Your task to perform on an android device: Go to Yahoo.com Image 0: 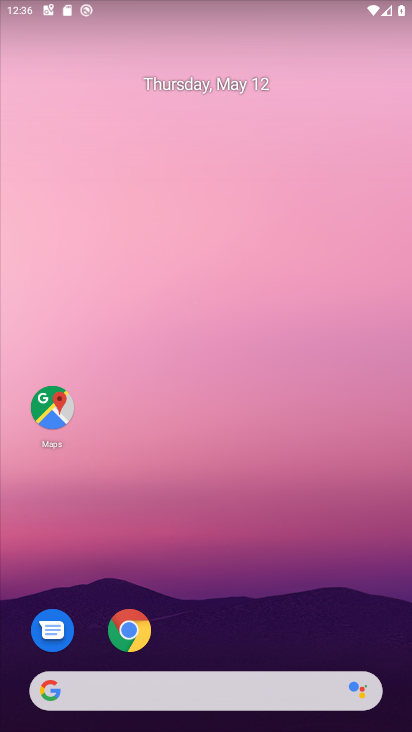
Step 0: click (130, 620)
Your task to perform on an android device: Go to Yahoo.com Image 1: 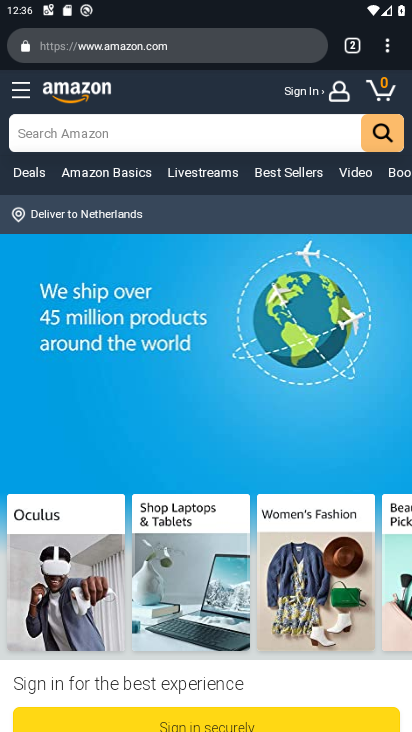
Step 1: drag from (388, 53) to (215, 94)
Your task to perform on an android device: Go to Yahoo.com Image 2: 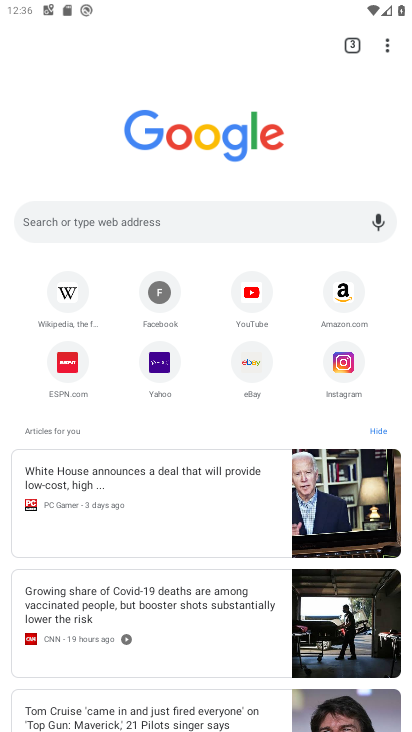
Step 2: click (166, 210)
Your task to perform on an android device: Go to Yahoo.com Image 3: 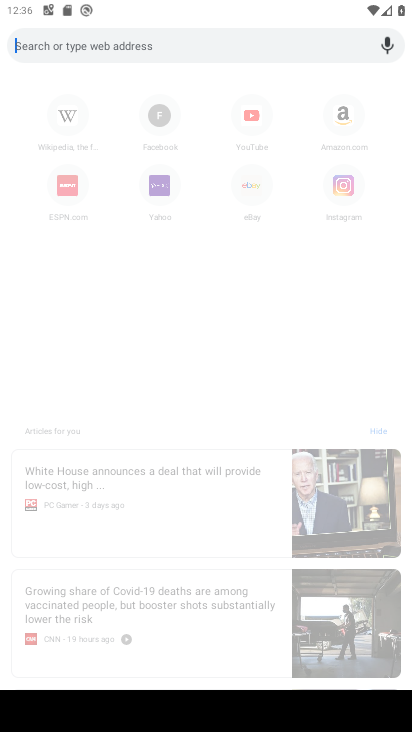
Step 3: type " Yahoo.com"
Your task to perform on an android device: Go to Yahoo.com Image 4: 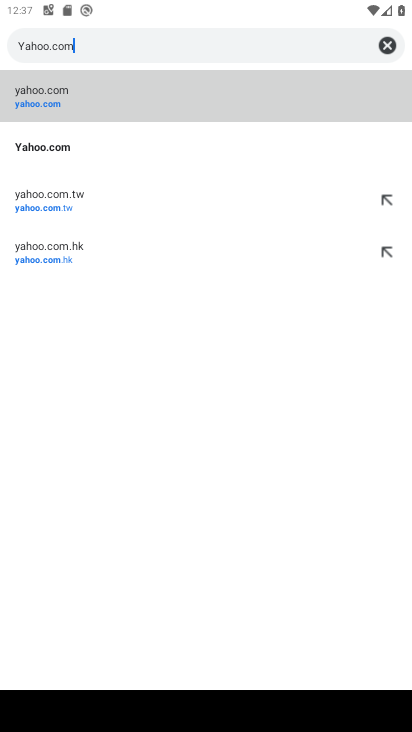
Step 4: click (41, 100)
Your task to perform on an android device: Go to Yahoo.com Image 5: 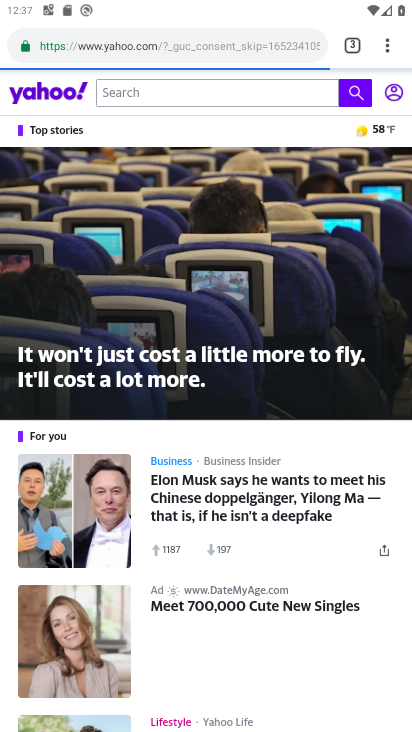
Step 5: task complete